Your task to perform on an android device: open wifi settings Image 0: 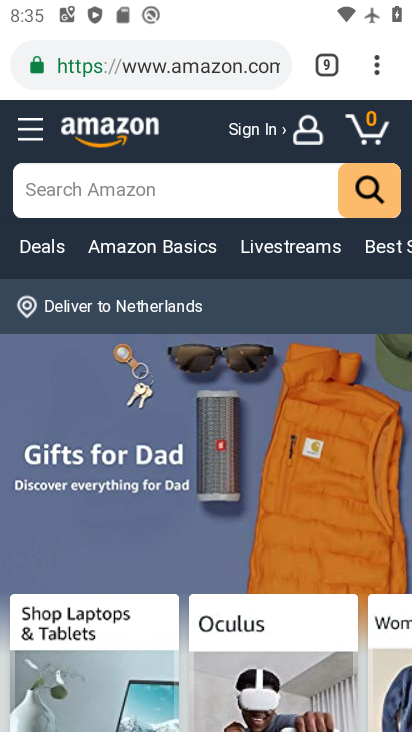
Step 0: press home button
Your task to perform on an android device: open wifi settings Image 1: 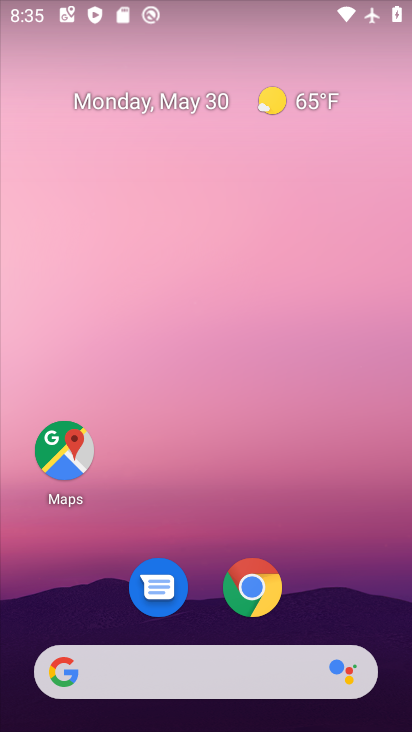
Step 1: drag from (175, 684) to (335, 65)
Your task to perform on an android device: open wifi settings Image 2: 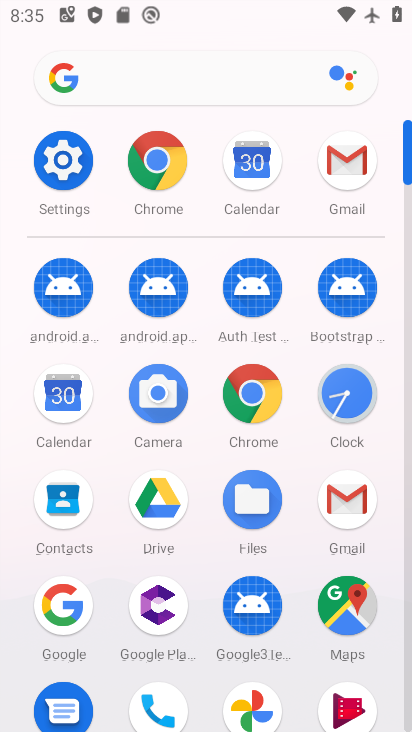
Step 2: click (64, 156)
Your task to perform on an android device: open wifi settings Image 3: 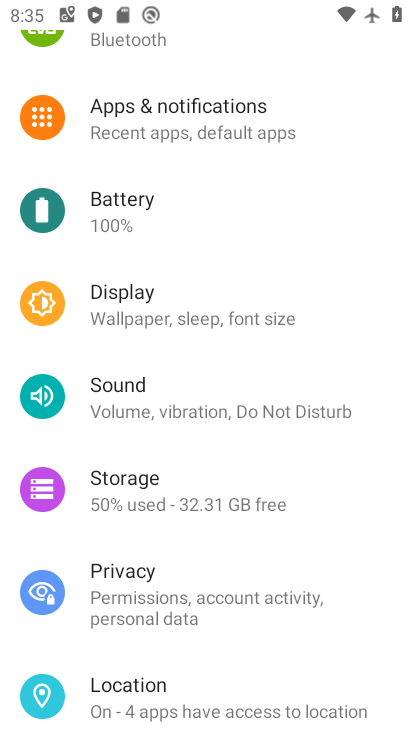
Step 3: drag from (312, 162) to (227, 662)
Your task to perform on an android device: open wifi settings Image 4: 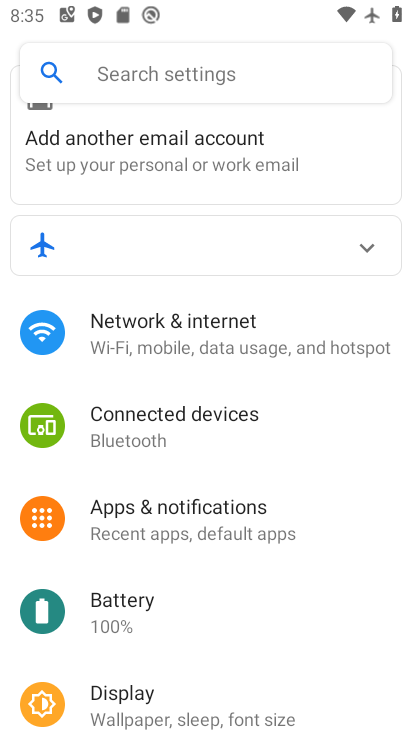
Step 4: click (194, 348)
Your task to perform on an android device: open wifi settings Image 5: 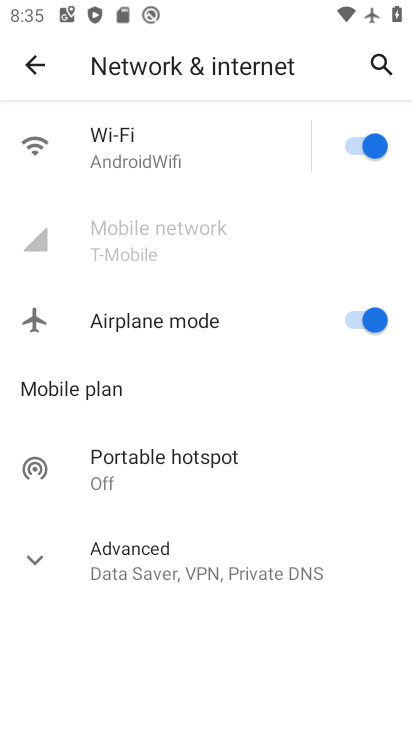
Step 5: click (131, 146)
Your task to perform on an android device: open wifi settings Image 6: 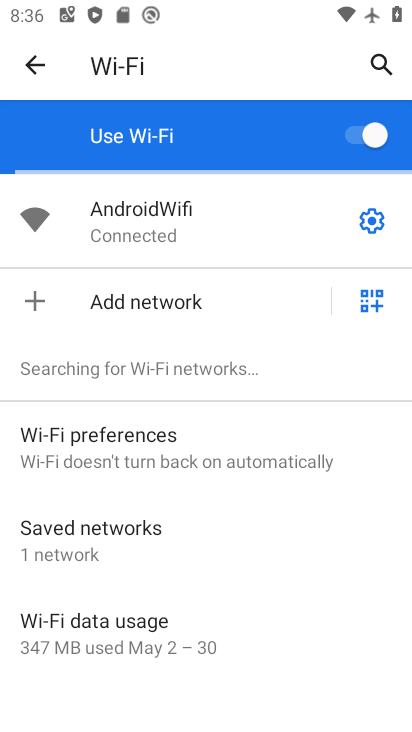
Step 6: task complete